Your task to perform on an android device: turn off javascript in the chrome app Image 0: 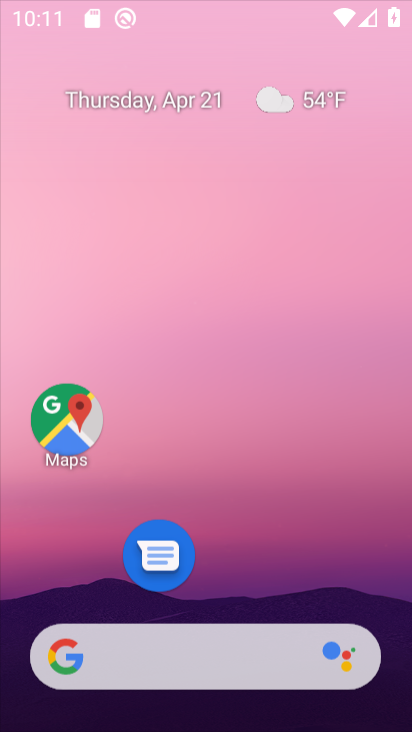
Step 0: click (65, 426)
Your task to perform on an android device: turn off javascript in the chrome app Image 1: 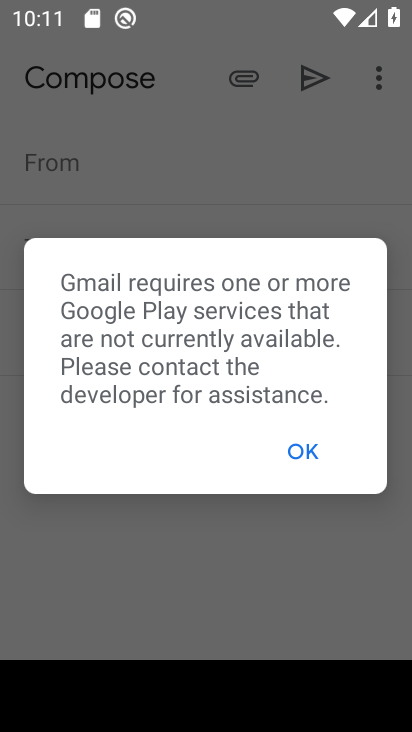
Step 1: press back button
Your task to perform on an android device: turn off javascript in the chrome app Image 2: 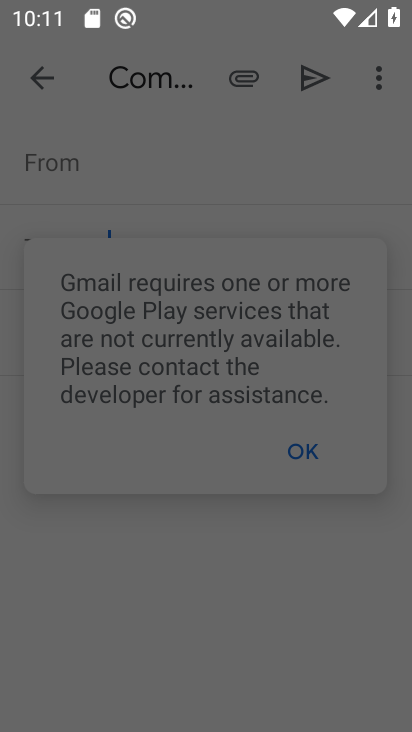
Step 2: press back button
Your task to perform on an android device: turn off javascript in the chrome app Image 3: 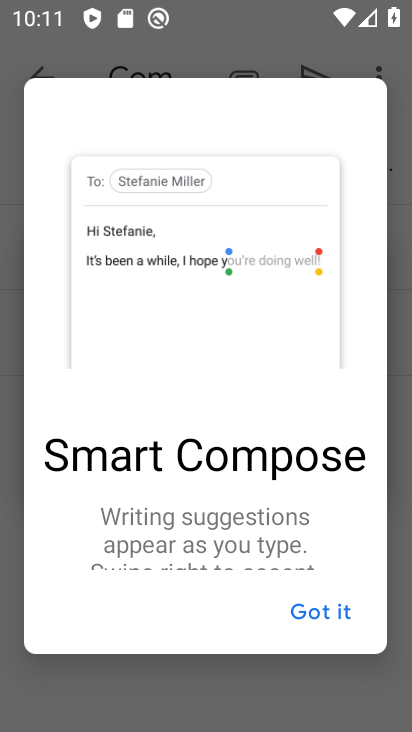
Step 3: press back button
Your task to perform on an android device: turn off javascript in the chrome app Image 4: 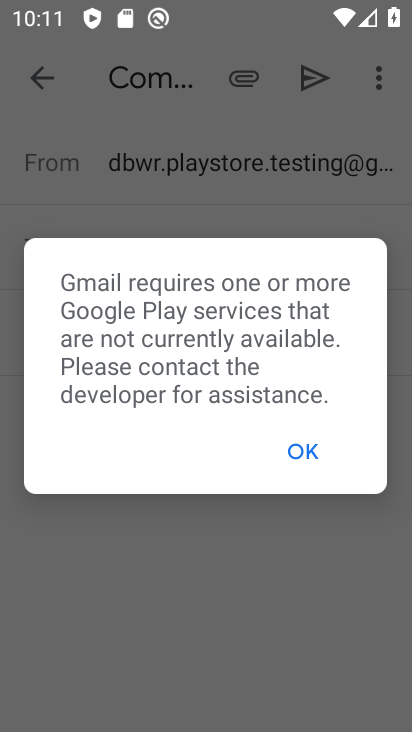
Step 4: press home button
Your task to perform on an android device: turn off javascript in the chrome app Image 5: 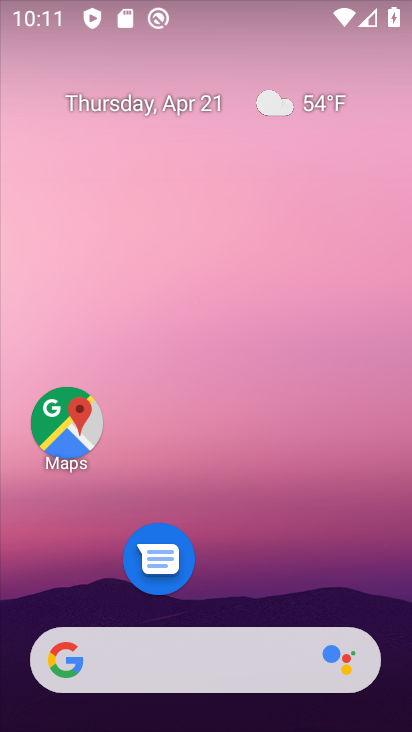
Step 5: drag from (225, 533) to (307, 80)
Your task to perform on an android device: turn off javascript in the chrome app Image 6: 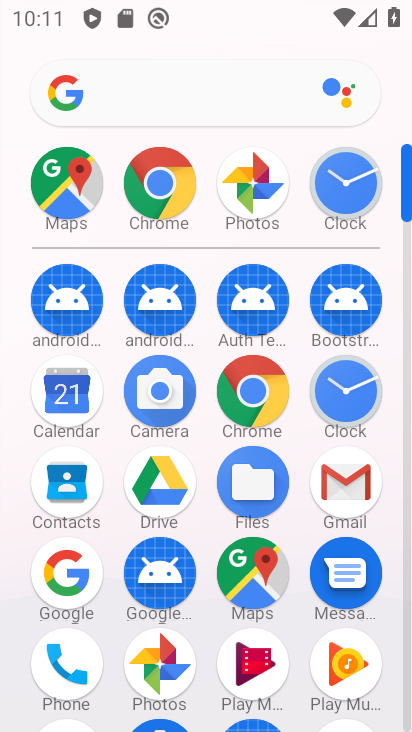
Step 6: click (170, 184)
Your task to perform on an android device: turn off javascript in the chrome app Image 7: 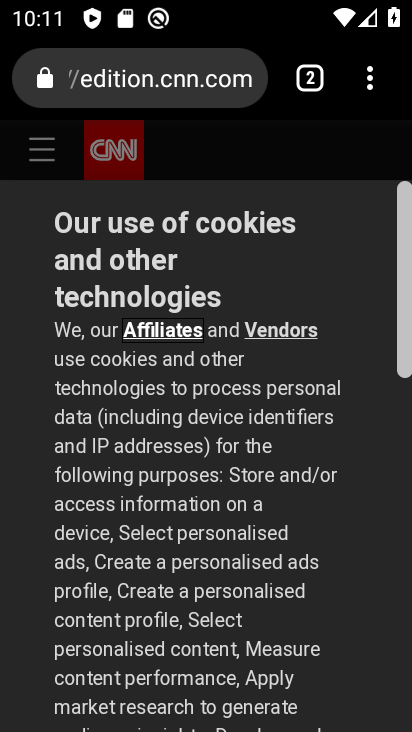
Step 7: click (370, 71)
Your task to perform on an android device: turn off javascript in the chrome app Image 8: 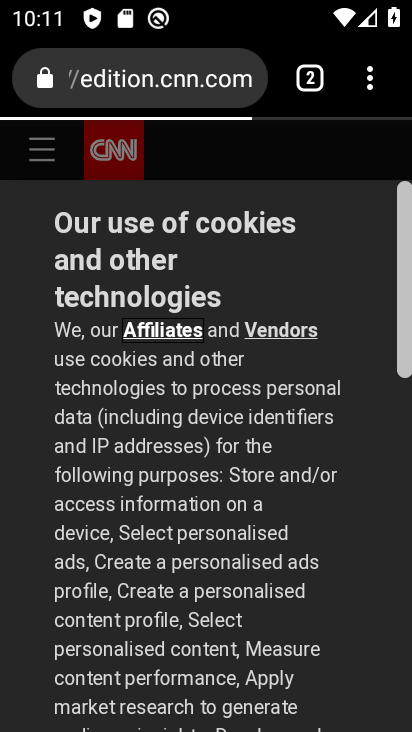
Step 8: click (363, 80)
Your task to perform on an android device: turn off javascript in the chrome app Image 9: 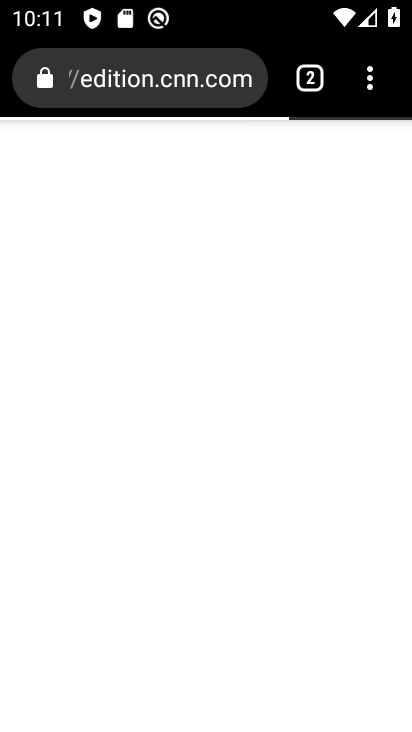
Step 9: drag from (363, 80) to (130, 600)
Your task to perform on an android device: turn off javascript in the chrome app Image 10: 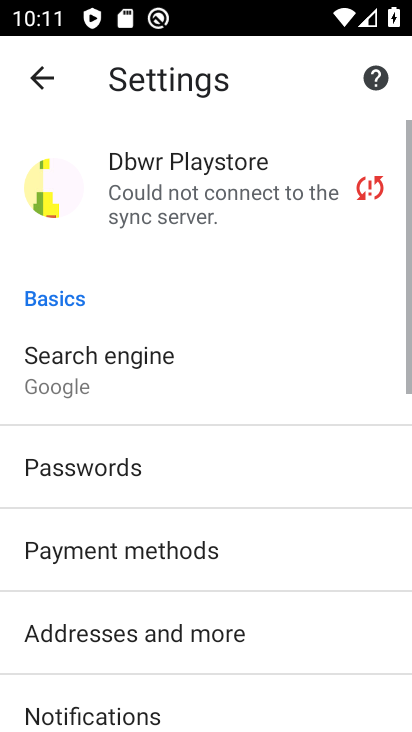
Step 10: drag from (162, 641) to (299, 154)
Your task to perform on an android device: turn off javascript in the chrome app Image 11: 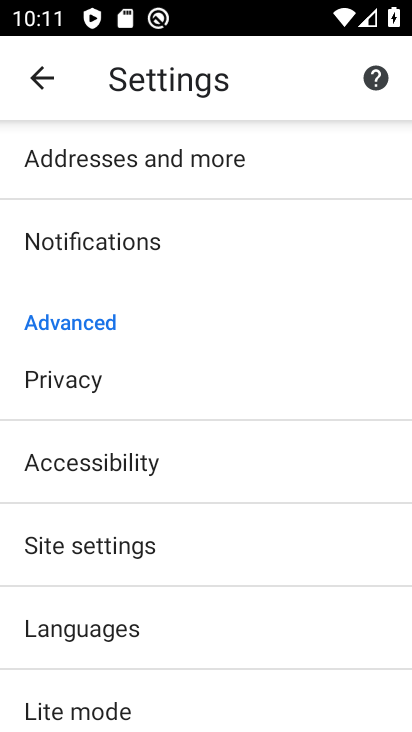
Step 11: click (128, 536)
Your task to perform on an android device: turn off javascript in the chrome app Image 12: 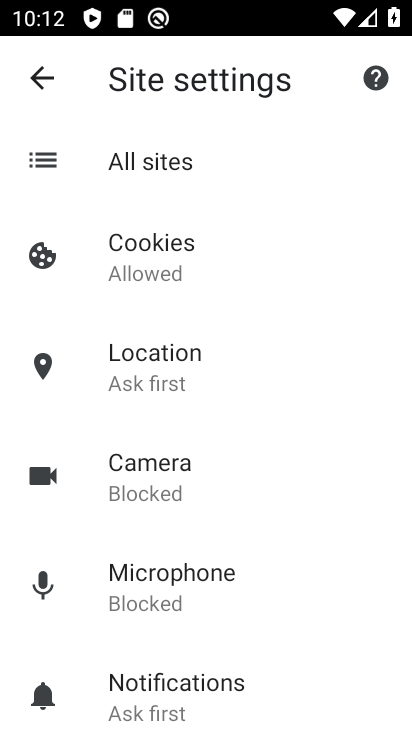
Step 12: drag from (185, 670) to (284, 186)
Your task to perform on an android device: turn off javascript in the chrome app Image 13: 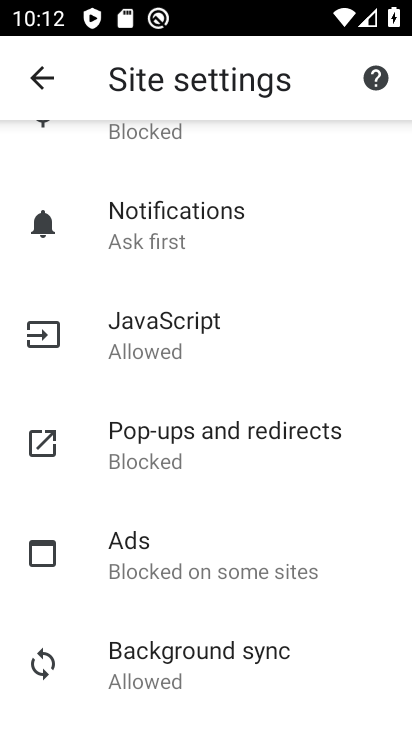
Step 13: click (184, 323)
Your task to perform on an android device: turn off javascript in the chrome app Image 14: 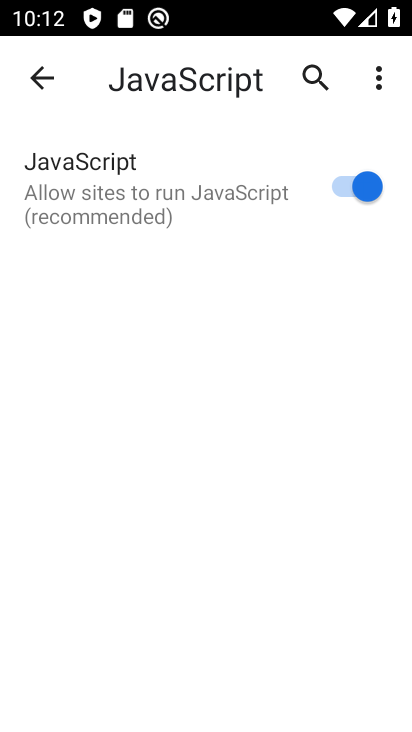
Step 14: click (348, 185)
Your task to perform on an android device: turn off javascript in the chrome app Image 15: 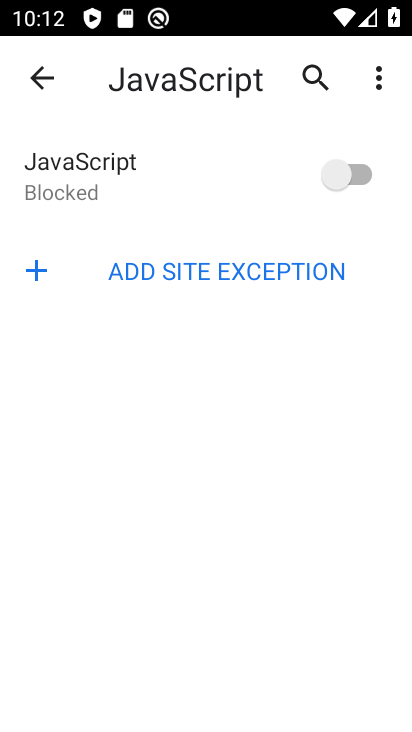
Step 15: task complete